Your task to perform on an android device: Go to settings Image 0: 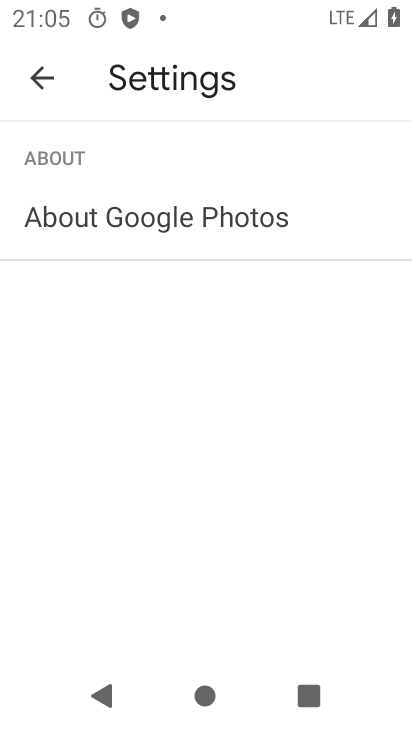
Step 0: press home button
Your task to perform on an android device: Go to settings Image 1: 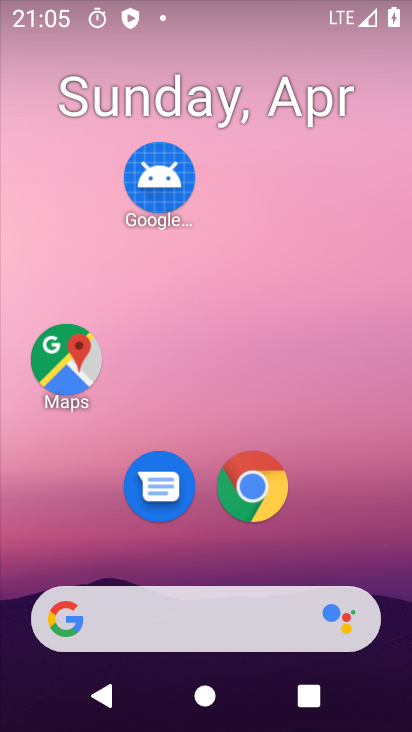
Step 1: drag from (342, 535) to (304, 89)
Your task to perform on an android device: Go to settings Image 2: 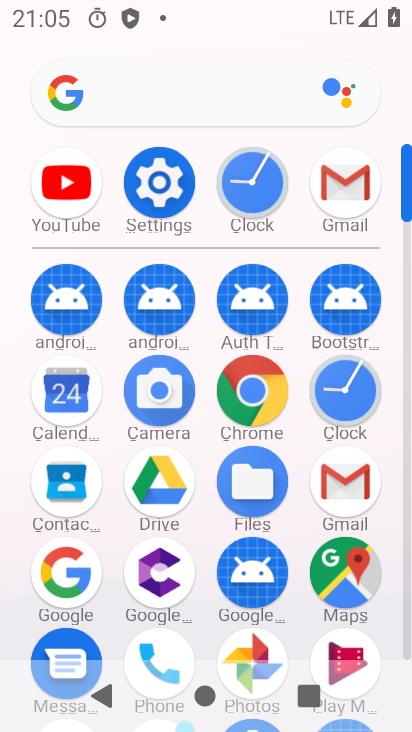
Step 2: click (146, 161)
Your task to perform on an android device: Go to settings Image 3: 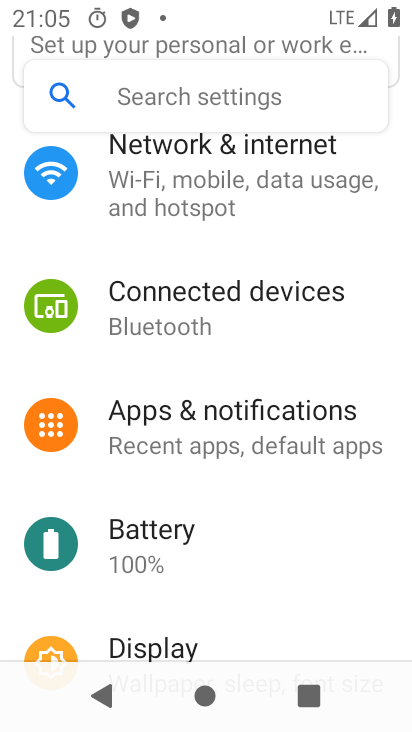
Step 3: task complete